Your task to perform on an android device: Open notification settings Image 0: 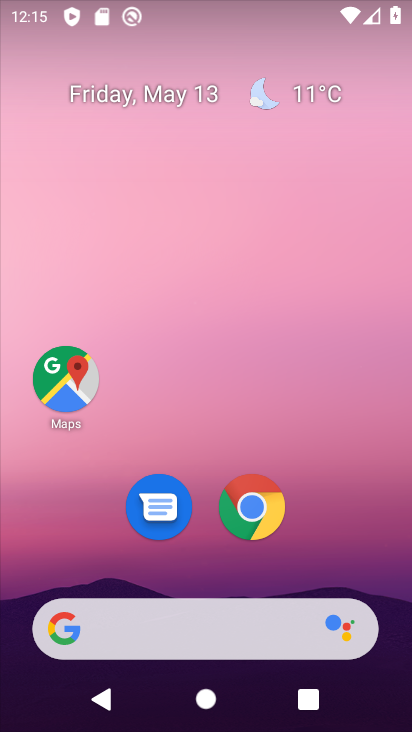
Step 0: drag from (223, 574) to (174, 23)
Your task to perform on an android device: Open notification settings Image 1: 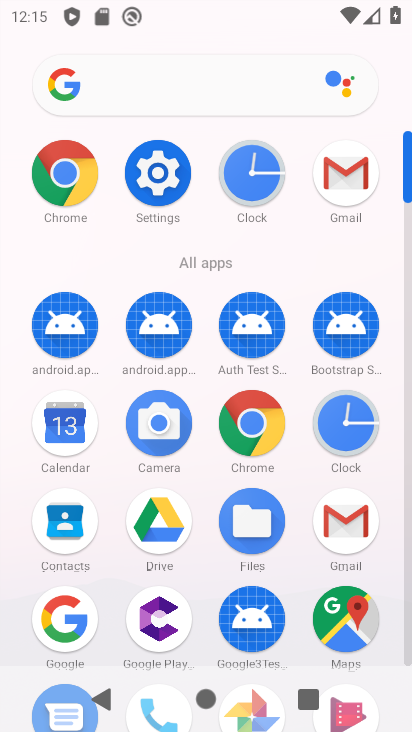
Step 1: click (154, 183)
Your task to perform on an android device: Open notification settings Image 2: 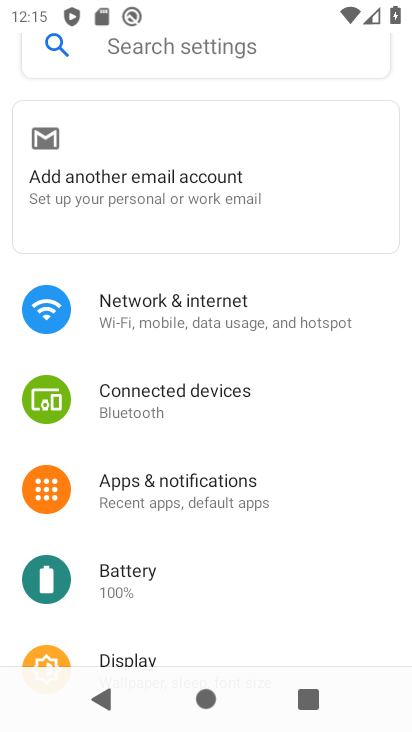
Step 2: click (181, 469)
Your task to perform on an android device: Open notification settings Image 3: 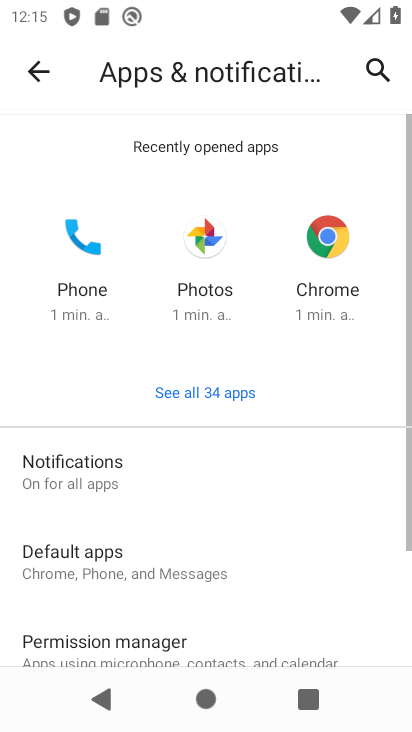
Step 3: click (145, 459)
Your task to perform on an android device: Open notification settings Image 4: 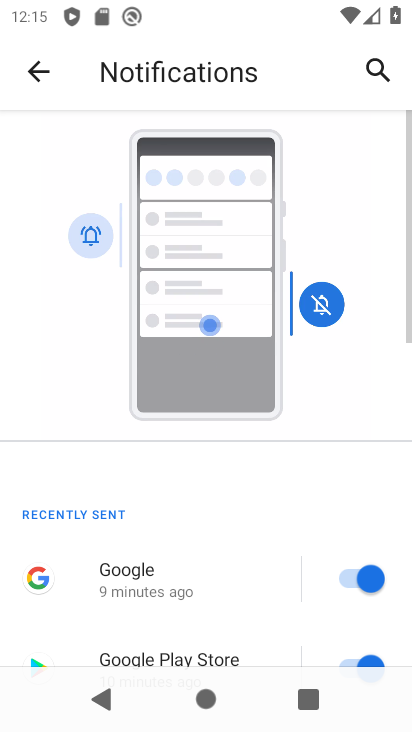
Step 4: task complete